Your task to perform on an android device: choose inbox layout in the gmail app Image 0: 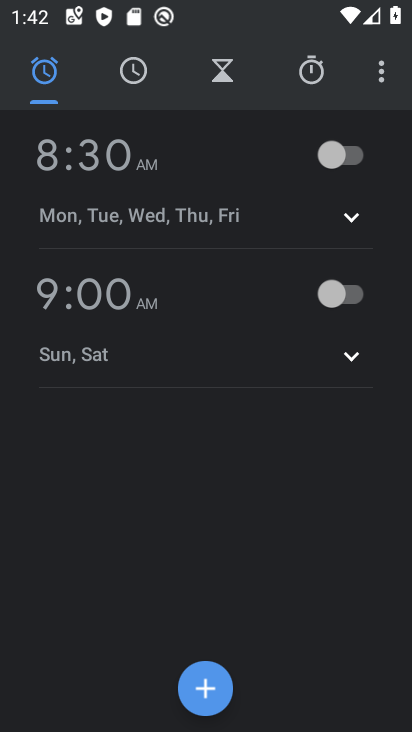
Step 0: press home button
Your task to perform on an android device: choose inbox layout in the gmail app Image 1: 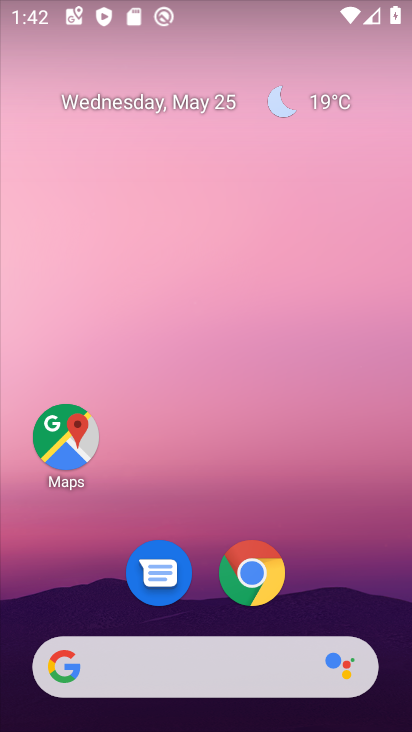
Step 1: drag from (385, 612) to (258, 135)
Your task to perform on an android device: choose inbox layout in the gmail app Image 2: 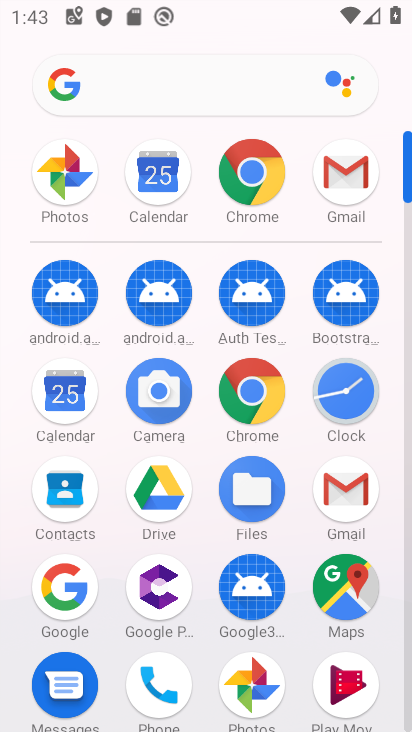
Step 2: click (344, 488)
Your task to perform on an android device: choose inbox layout in the gmail app Image 3: 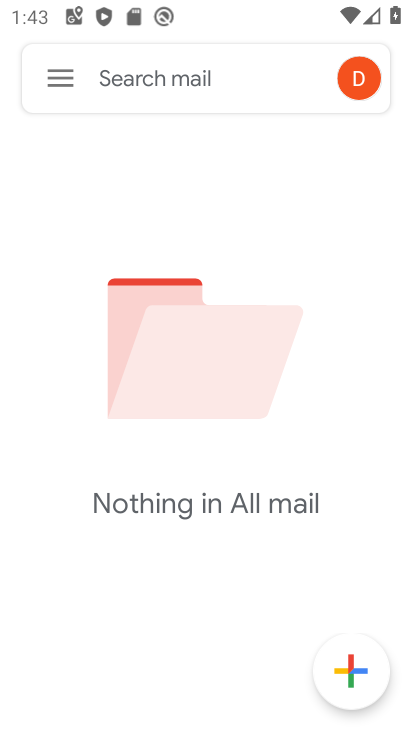
Step 3: click (56, 72)
Your task to perform on an android device: choose inbox layout in the gmail app Image 4: 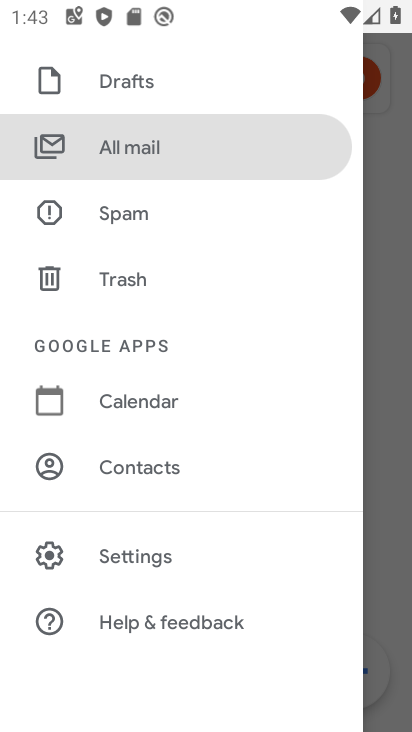
Step 4: click (137, 556)
Your task to perform on an android device: choose inbox layout in the gmail app Image 5: 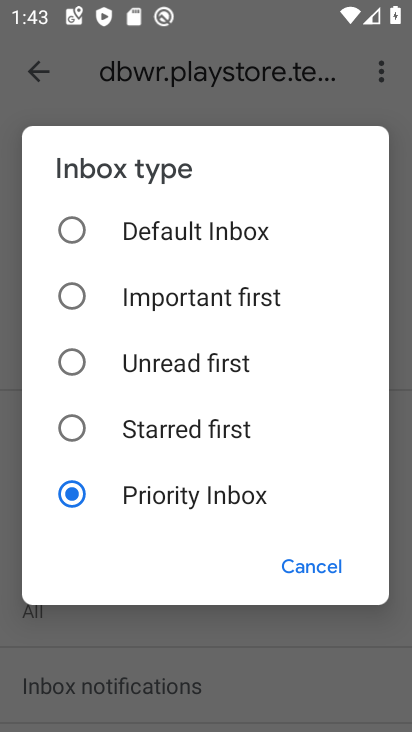
Step 5: click (72, 229)
Your task to perform on an android device: choose inbox layout in the gmail app Image 6: 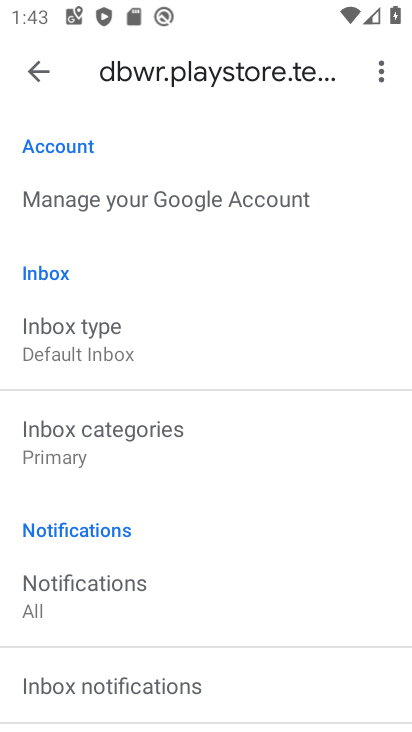
Step 6: task complete